Your task to perform on an android device: What's the weather going to be this weekend? Image 0: 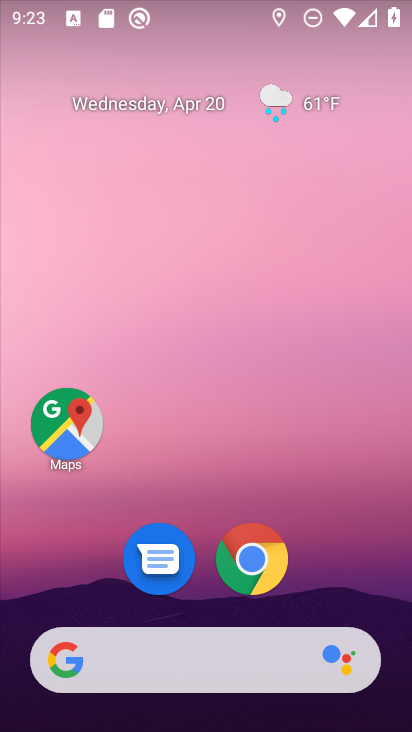
Step 0: drag from (376, 624) to (294, 143)
Your task to perform on an android device: What's the weather going to be this weekend? Image 1: 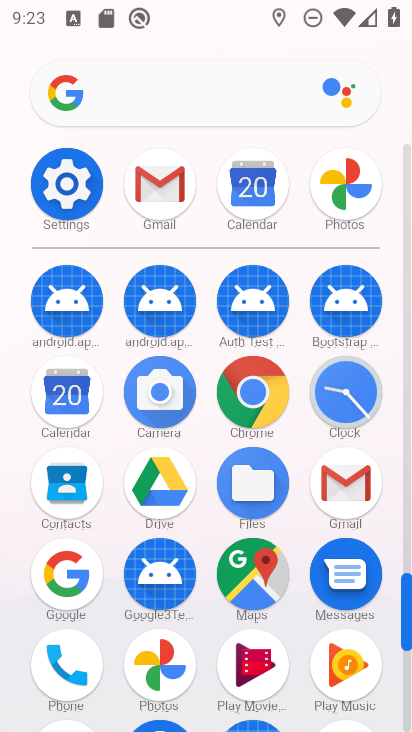
Step 1: click (147, 96)
Your task to perform on an android device: What's the weather going to be this weekend? Image 2: 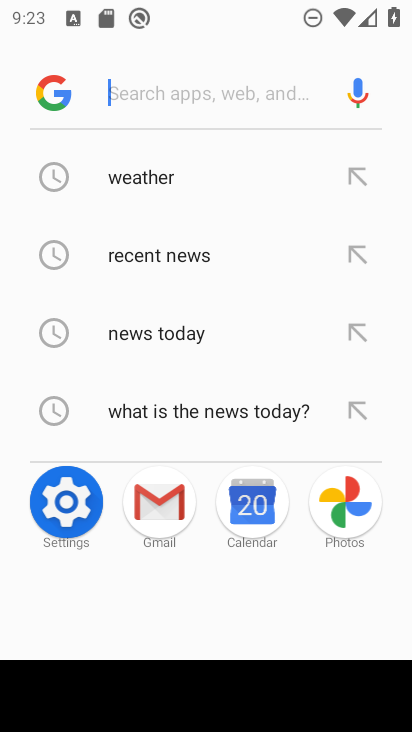
Step 2: click (157, 180)
Your task to perform on an android device: What's the weather going to be this weekend? Image 3: 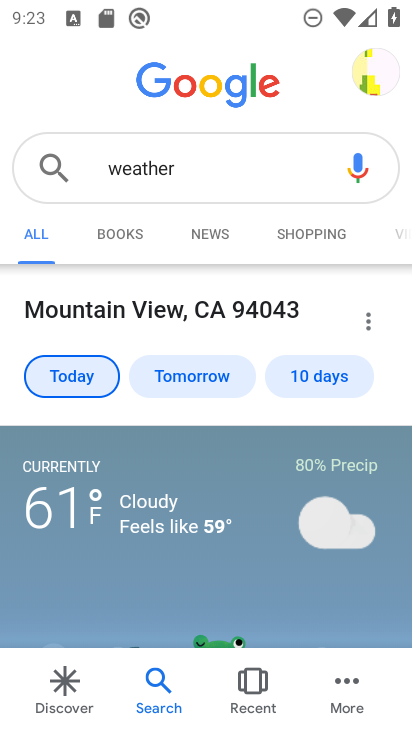
Step 3: drag from (240, 501) to (214, 334)
Your task to perform on an android device: What's the weather going to be this weekend? Image 4: 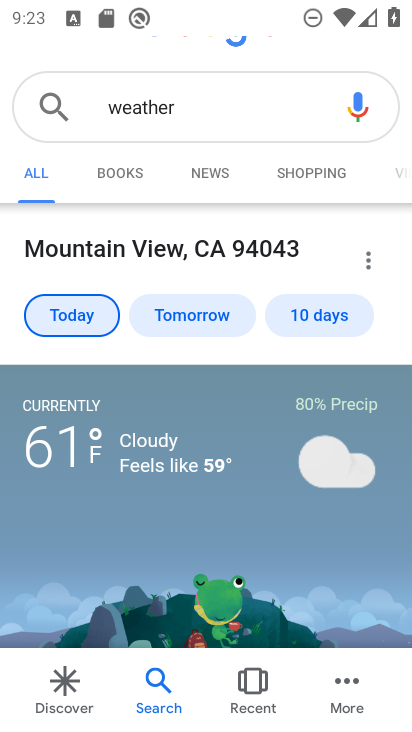
Step 4: click (299, 306)
Your task to perform on an android device: What's the weather going to be this weekend? Image 5: 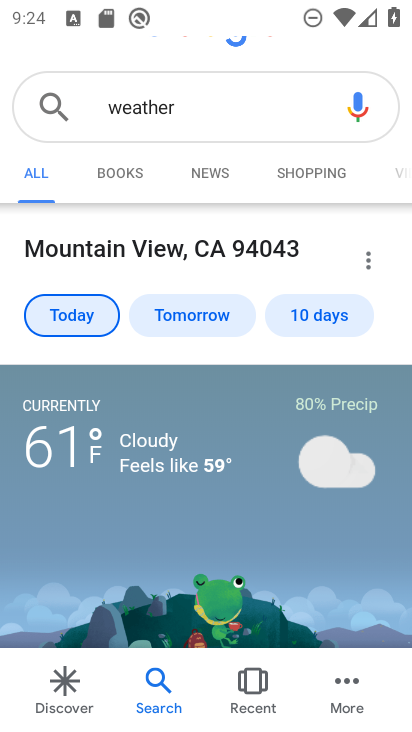
Step 5: click (312, 311)
Your task to perform on an android device: What's the weather going to be this weekend? Image 6: 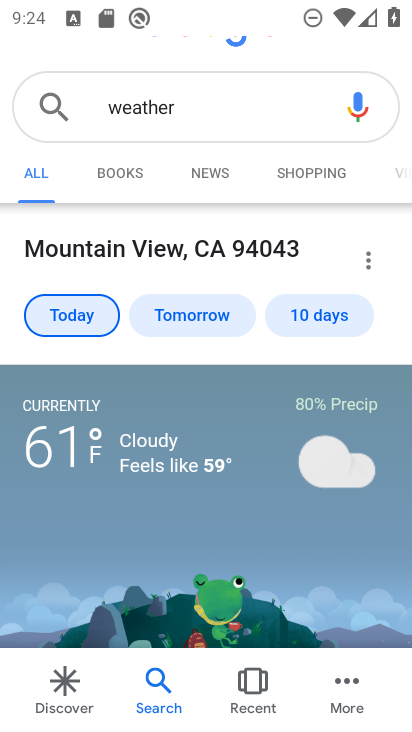
Step 6: click (312, 311)
Your task to perform on an android device: What's the weather going to be this weekend? Image 7: 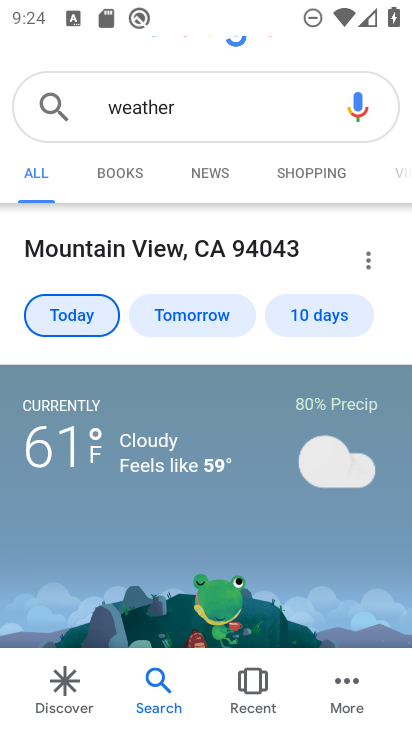
Step 7: drag from (245, 571) to (237, 200)
Your task to perform on an android device: What's the weather going to be this weekend? Image 8: 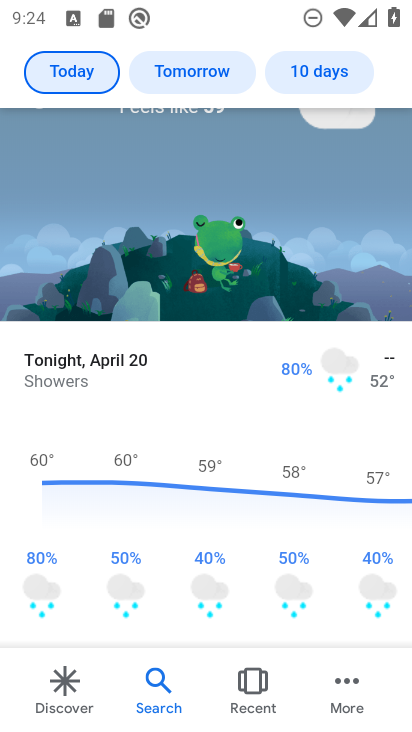
Step 8: drag from (230, 318) to (231, 602)
Your task to perform on an android device: What's the weather going to be this weekend? Image 9: 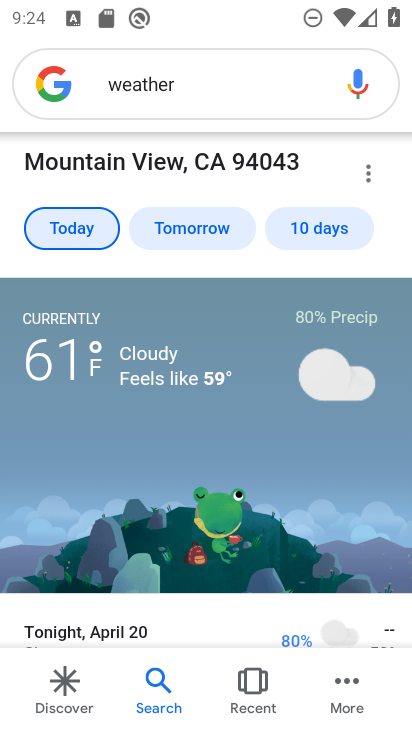
Step 9: click (316, 230)
Your task to perform on an android device: What's the weather going to be this weekend? Image 10: 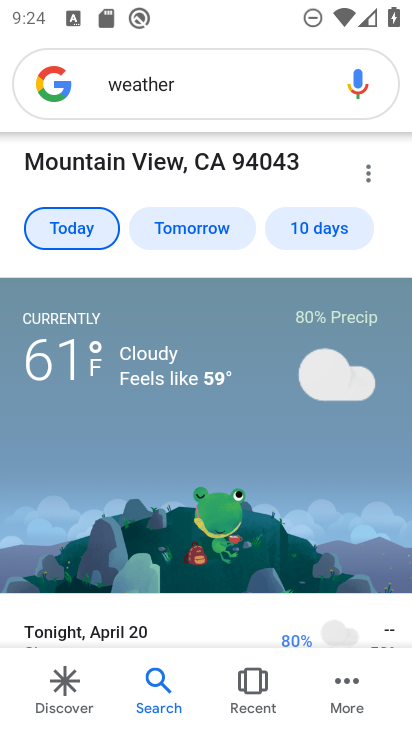
Step 10: click (328, 226)
Your task to perform on an android device: What's the weather going to be this weekend? Image 11: 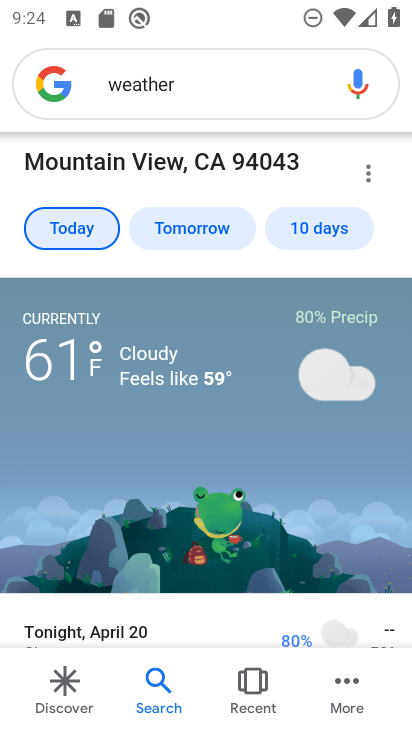
Step 11: click (328, 226)
Your task to perform on an android device: What's the weather going to be this weekend? Image 12: 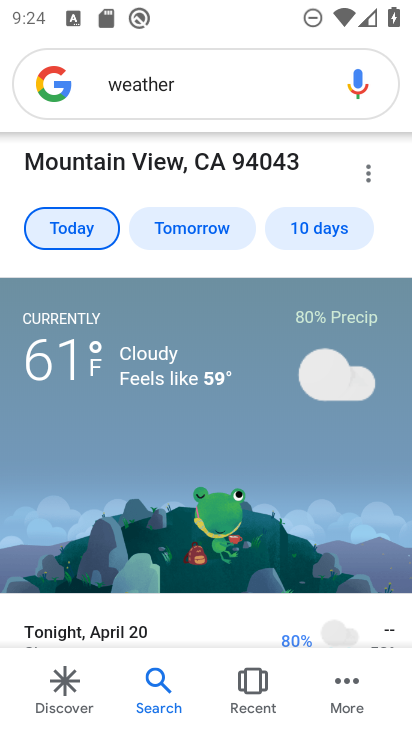
Step 12: drag from (252, 541) to (245, 151)
Your task to perform on an android device: What's the weather going to be this weekend? Image 13: 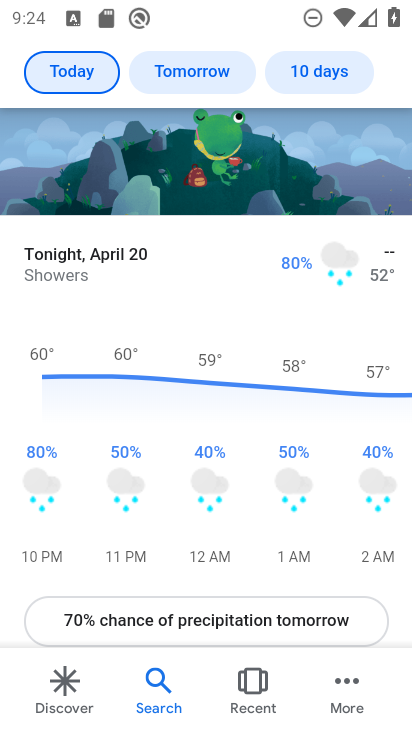
Step 13: drag from (340, 468) to (31, 440)
Your task to perform on an android device: What's the weather going to be this weekend? Image 14: 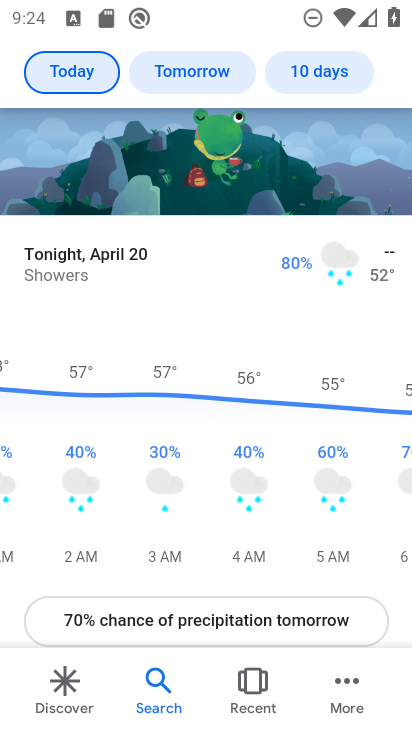
Step 14: drag from (320, 466) to (8, 433)
Your task to perform on an android device: What's the weather going to be this weekend? Image 15: 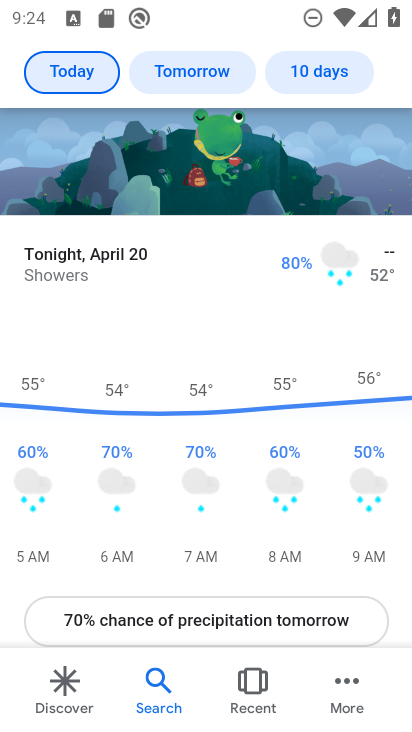
Step 15: drag from (247, 382) to (215, 601)
Your task to perform on an android device: What's the weather going to be this weekend? Image 16: 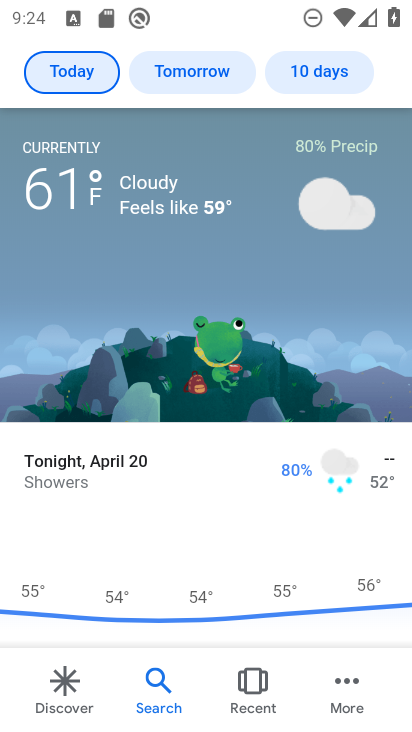
Step 16: drag from (234, 247) to (213, 441)
Your task to perform on an android device: What's the weather going to be this weekend? Image 17: 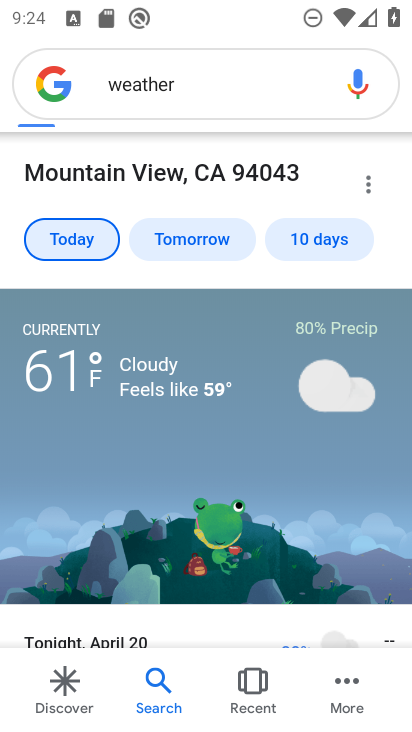
Step 17: click (320, 236)
Your task to perform on an android device: What's the weather going to be this weekend? Image 18: 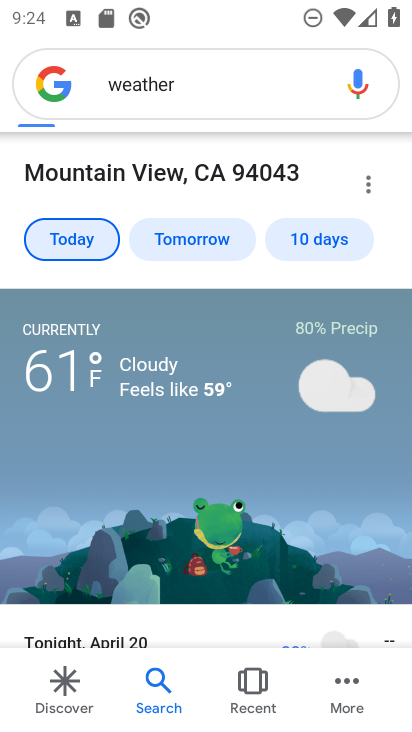
Step 18: click (195, 250)
Your task to perform on an android device: What's the weather going to be this weekend? Image 19: 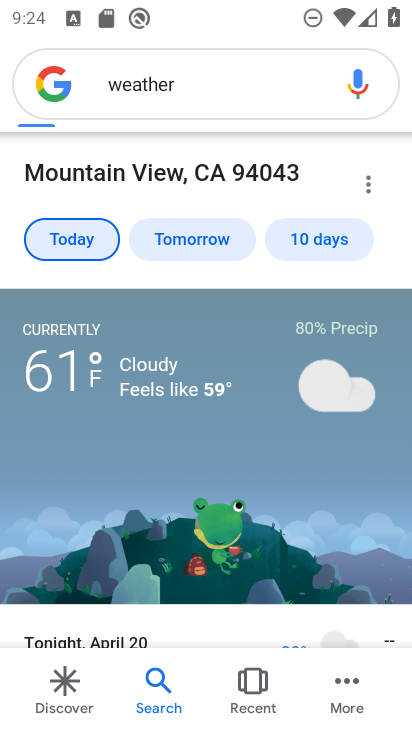
Step 19: click (195, 250)
Your task to perform on an android device: What's the weather going to be this weekend? Image 20: 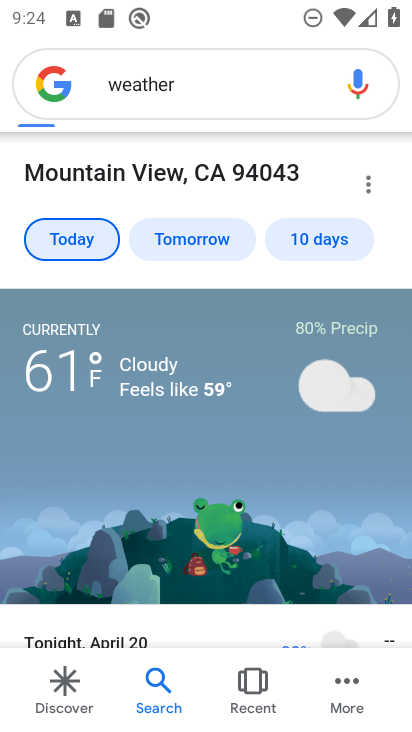
Step 20: click (331, 248)
Your task to perform on an android device: What's the weather going to be this weekend? Image 21: 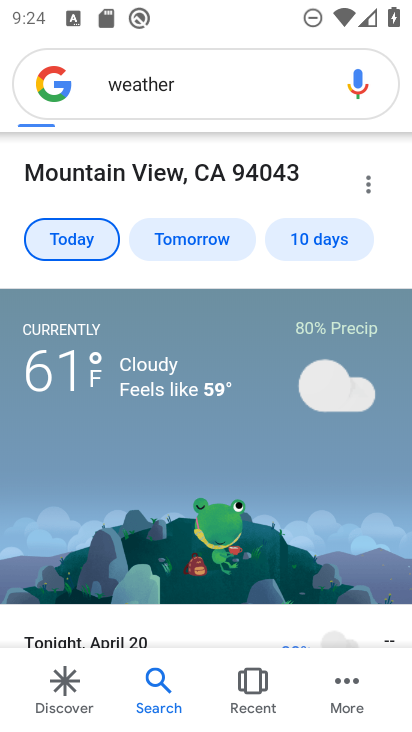
Step 21: task complete